Your task to perform on an android device: turn on priority inbox in the gmail app Image 0: 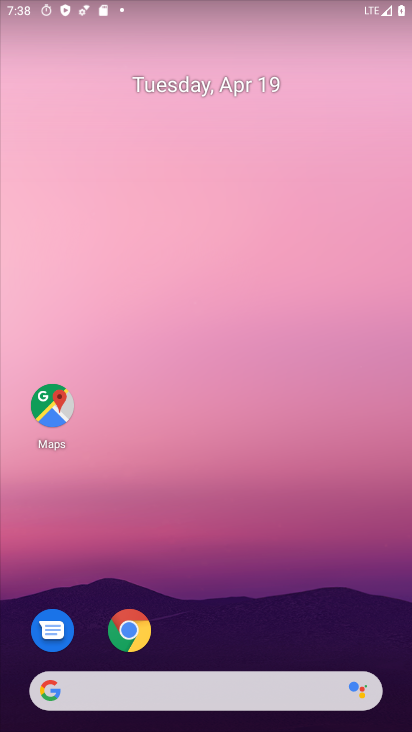
Step 0: drag from (236, 669) to (188, 21)
Your task to perform on an android device: turn on priority inbox in the gmail app Image 1: 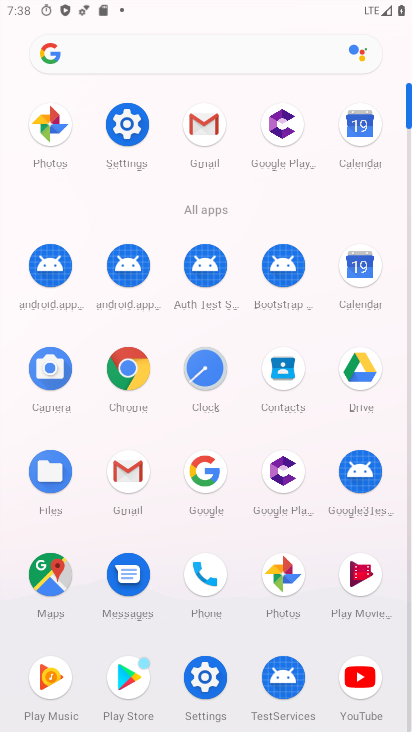
Step 1: click (138, 480)
Your task to perform on an android device: turn on priority inbox in the gmail app Image 2: 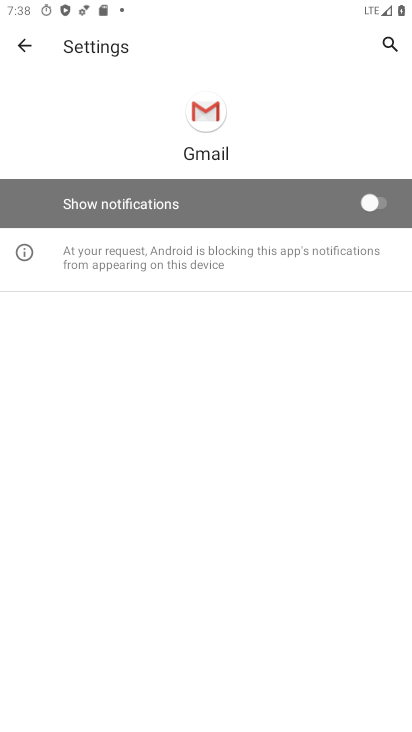
Step 2: click (20, 39)
Your task to perform on an android device: turn on priority inbox in the gmail app Image 3: 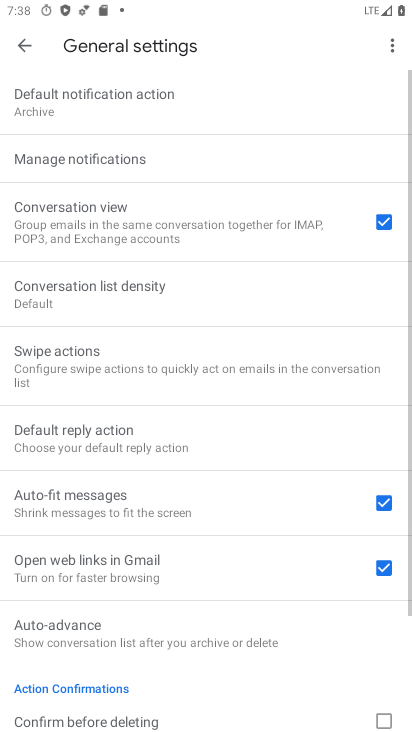
Step 3: click (26, 41)
Your task to perform on an android device: turn on priority inbox in the gmail app Image 4: 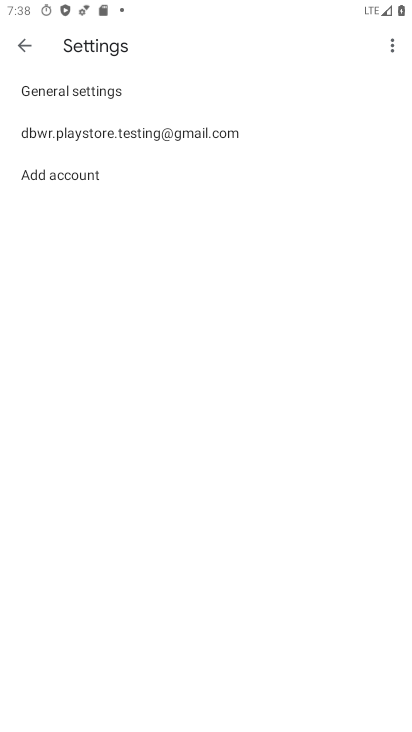
Step 4: click (60, 127)
Your task to perform on an android device: turn on priority inbox in the gmail app Image 5: 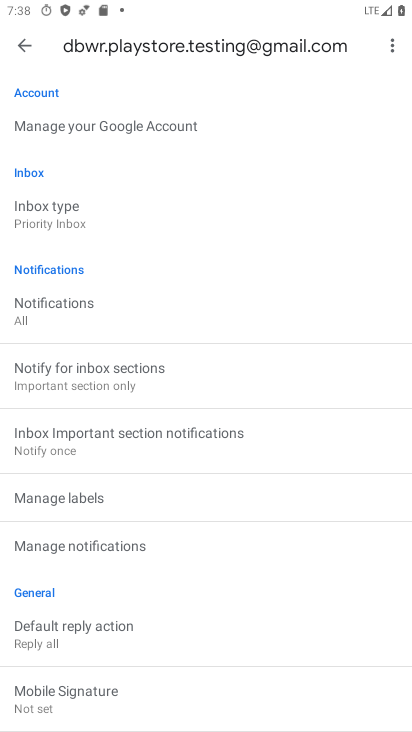
Step 5: click (57, 210)
Your task to perform on an android device: turn on priority inbox in the gmail app Image 6: 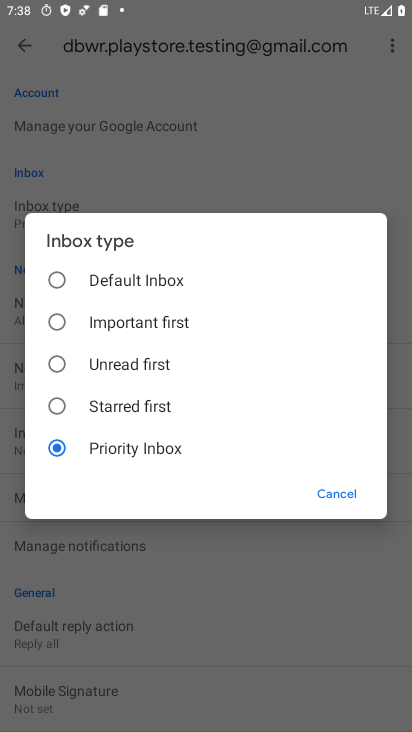
Step 6: click (131, 455)
Your task to perform on an android device: turn on priority inbox in the gmail app Image 7: 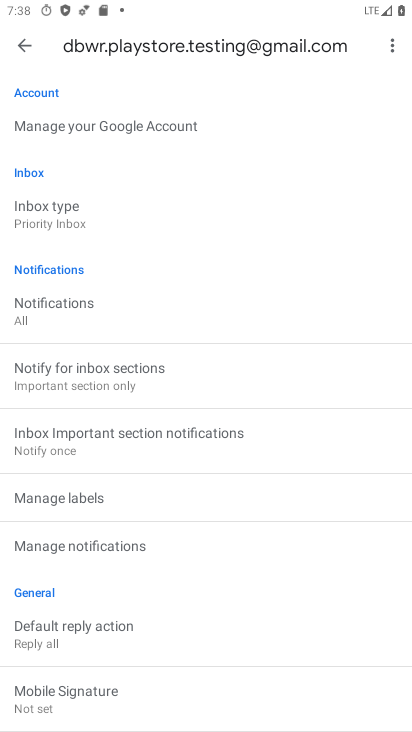
Step 7: task complete